Your task to perform on an android device: turn off notifications in google photos Image 0: 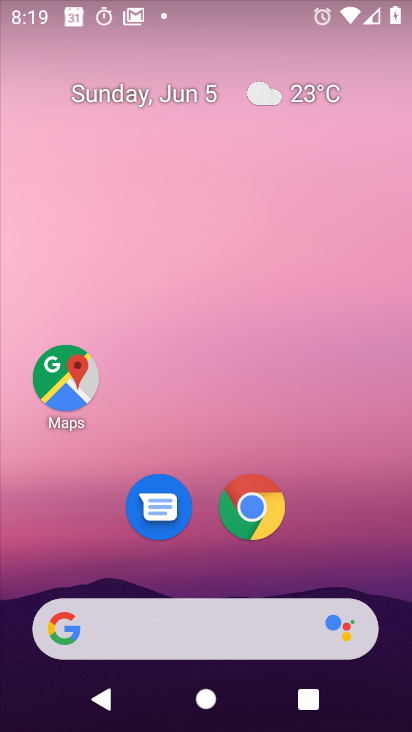
Step 0: drag from (287, 675) to (181, 89)
Your task to perform on an android device: turn off notifications in google photos Image 1: 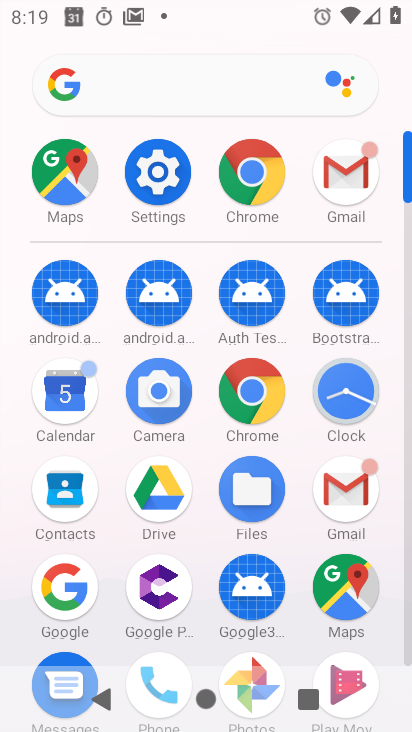
Step 1: click (267, 650)
Your task to perform on an android device: turn off notifications in google photos Image 2: 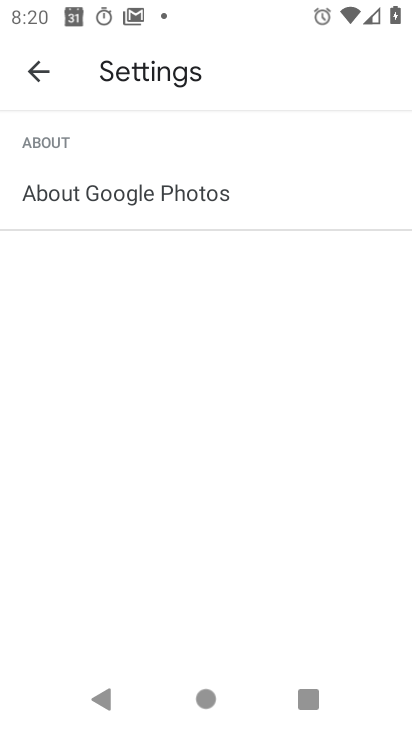
Step 2: click (31, 59)
Your task to perform on an android device: turn off notifications in google photos Image 3: 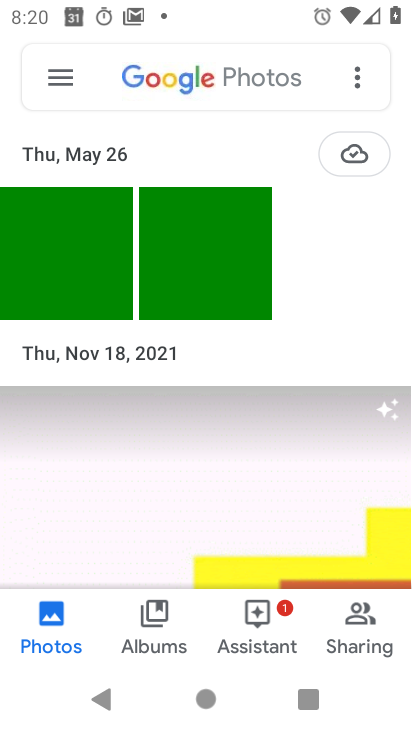
Step 3: click (44, 80)
Your task to perform on an android device: turn off notifications in google photos Image 4: 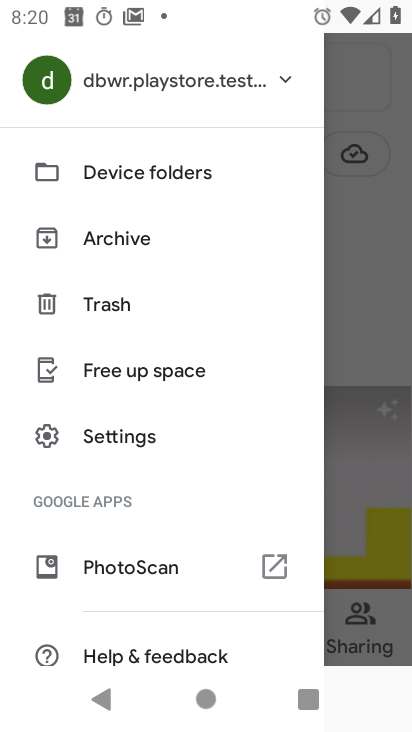
Step 4: click (148, 443)
Your task to perform on an android device: turn off notifications in google photos Image 5: 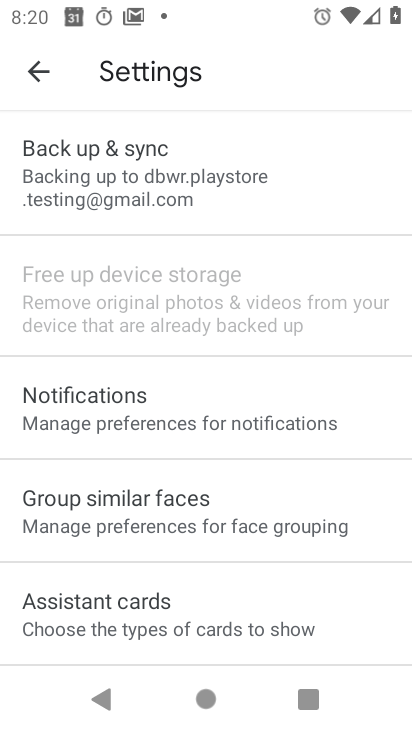
Step 5: click (148, 426)
Your task to perform on an android device: turn off notifications in google photos Image 6: 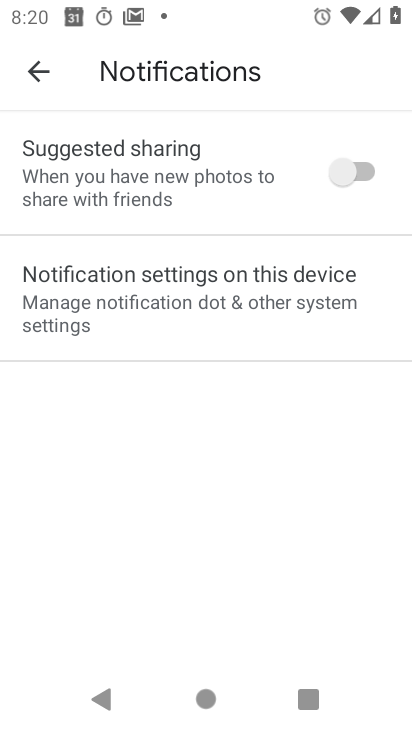
Step 6: click (340, 168)
Your task to perform on an android device: turn off notifications in google photos Image 7: 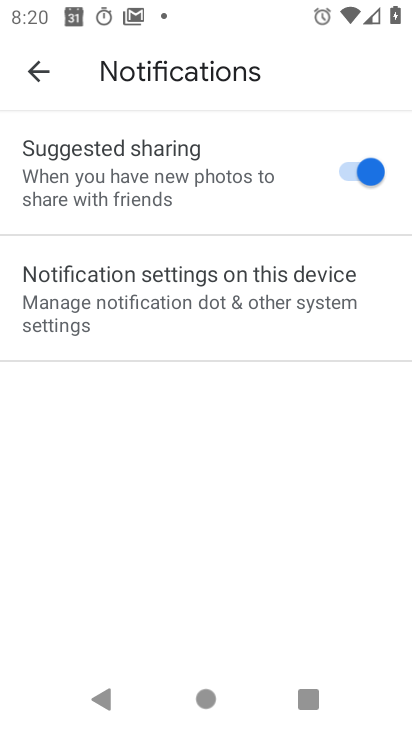
Step 7: click (201, 325)
Your task to perform on an android device: turn off notifications in google photos Image 8: 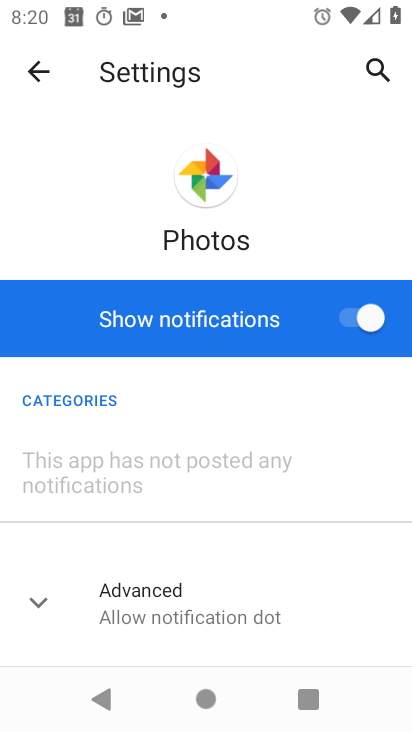
Step 8: click (366, 325)
Your task to perform on an android device: turn off notifications in google photos Image 9: 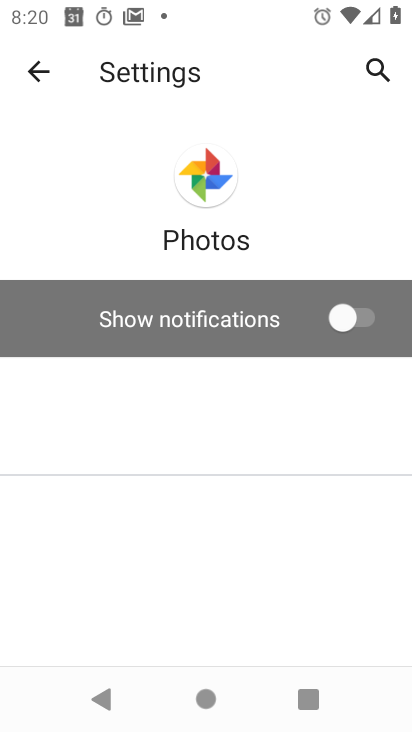
Step 9: task complete